Your task to perform on an android device: change text size in settings app Image 0: 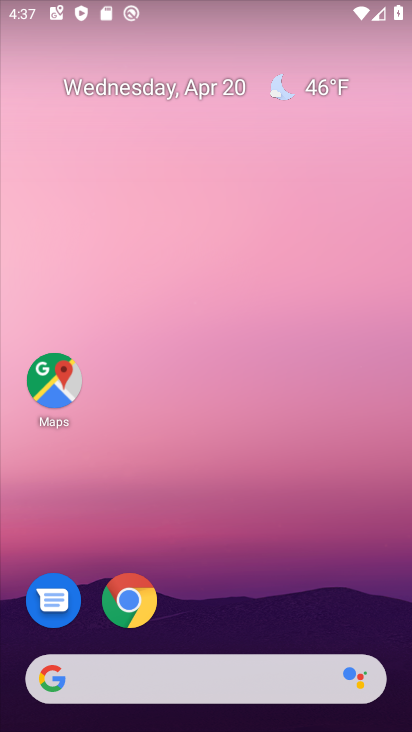
Step 0: drag from (237, 599) to (229, 85)
Your task to perform on an android device: change text size in settings app Image 1: 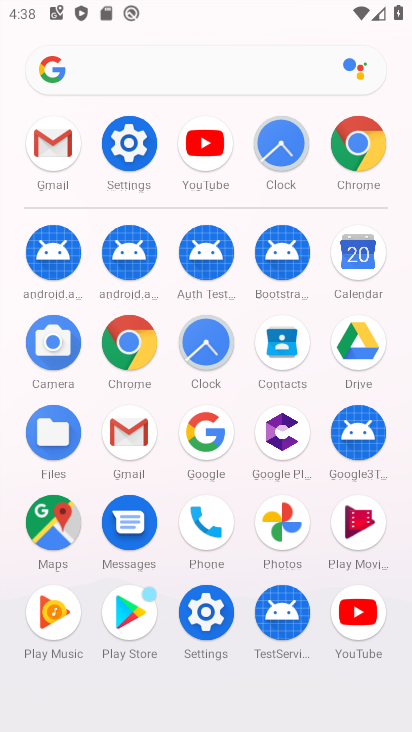
Step 1: click (198, 604)
Your task to perform on an android device: change text size in settings app Image 2: 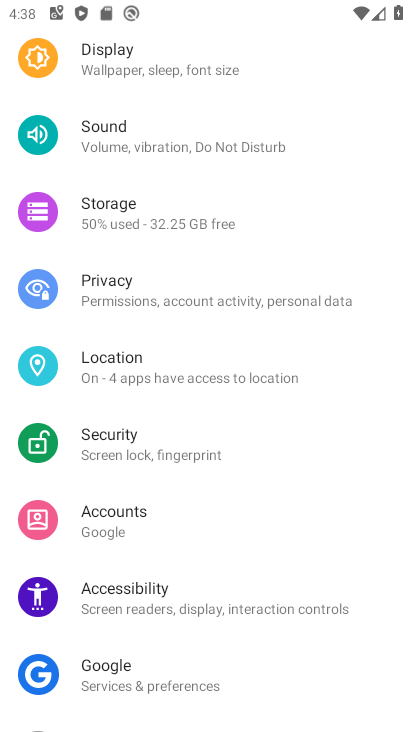
Step 2: click (109, 65)
Your task to perform on an android device: change text size in settings app Image 3: 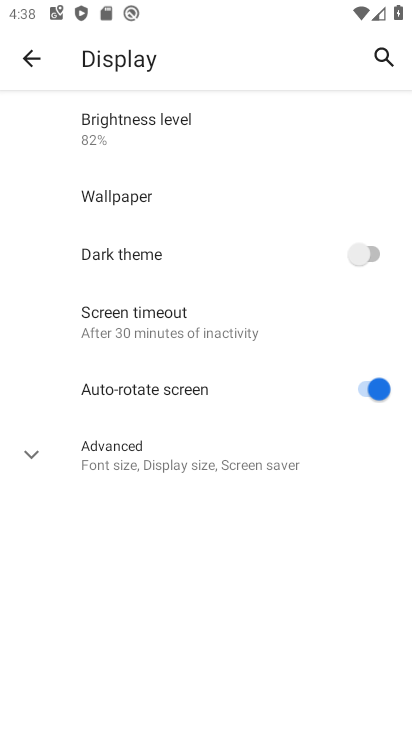
Step 3: click (93, 453)
Your task to perform on an android device: change text size in settings app Image 4: 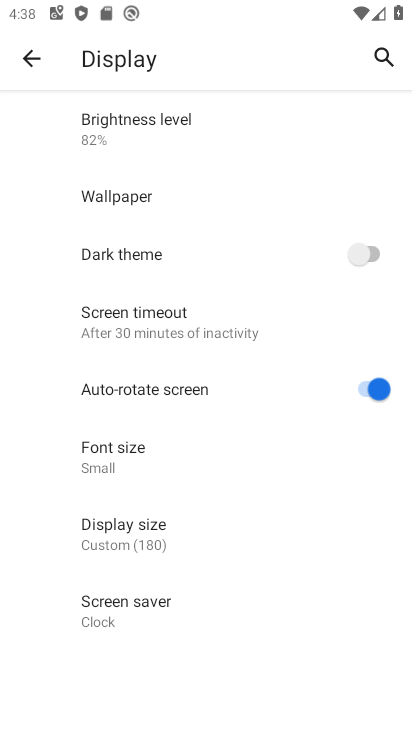
Step 4: click (143, 461)
Your task to perform on an android device: change text size in settings app Image 5: 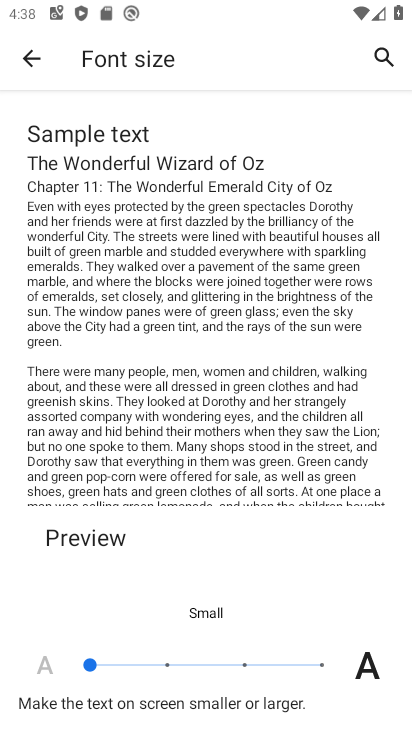
Step 5: click (163, 672)
Your task to perform on an android device: change text size in settings app Image 6: 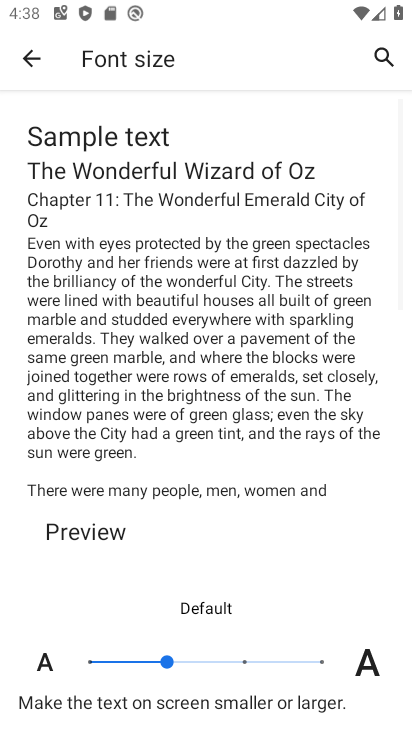
Step 6: task complete